Your task to perform on an android device: Go to calendar. Show me events next week Image 0: 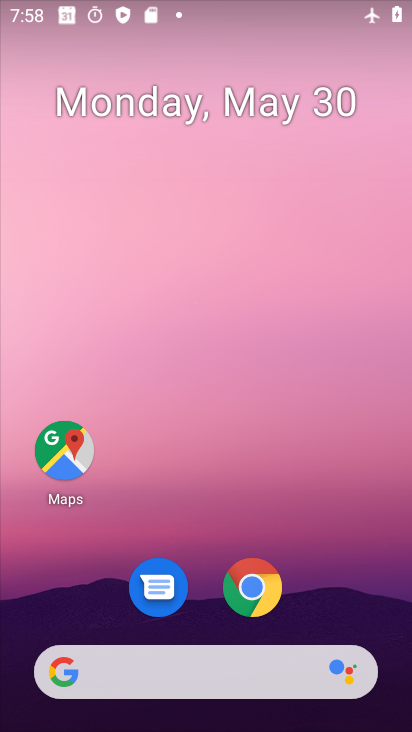
Step 0: drag from (333, 503) to (219, 6)
Your task to perform on an android device: Go to calendar. Show me events next week Image 1: 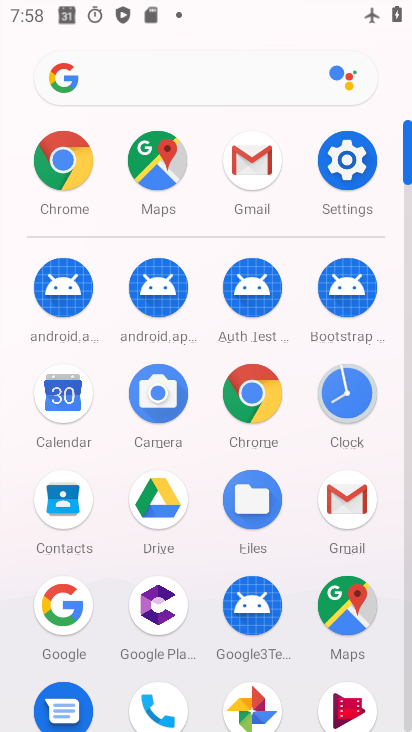
Step 1: drag from (19, 565) to (12, 269)
Your task to perform on an android device: Go to calendar. Show me events next week Image 2: 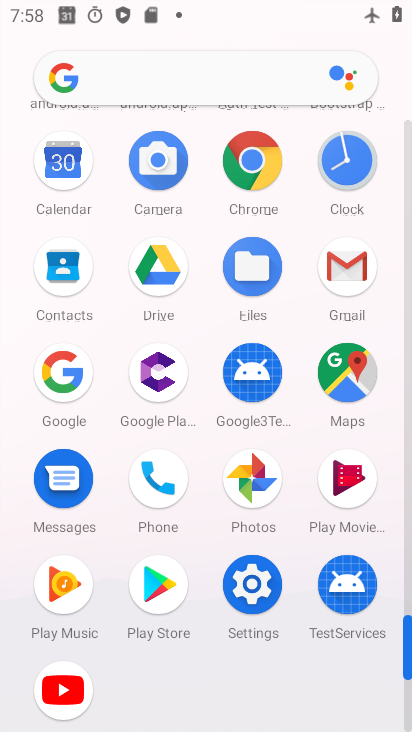
Step 2: click (63, 160)
Your task to perform on an android device: Go to calendar. Show me events next week Image 3: 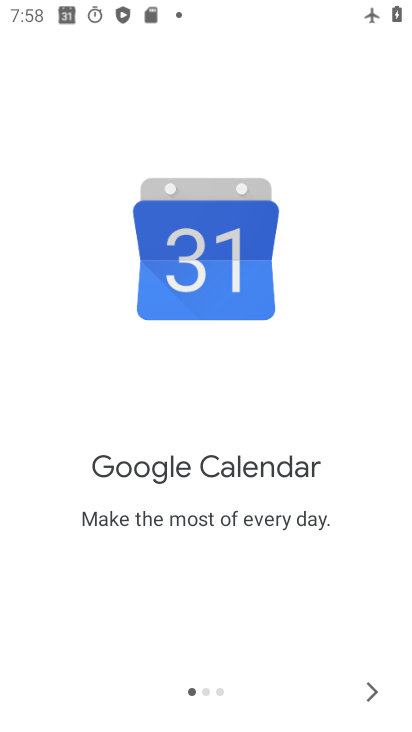
Step 3: click (359, 686)
Your task to perform on an android device: Go to calendar. Show me events next week Image 4: 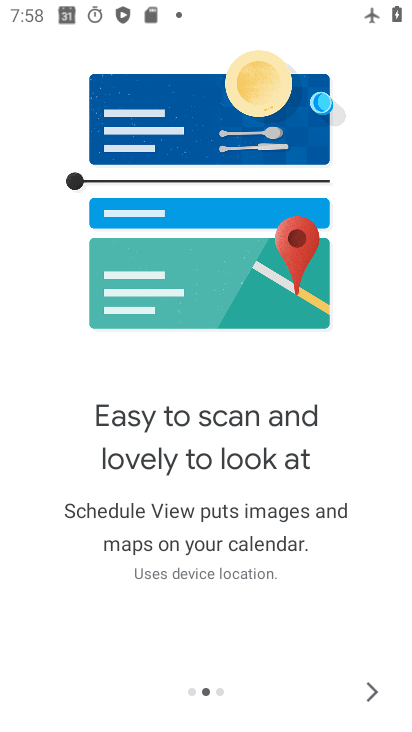
Step 4: click (359, 686)
Your task to perform on an android device: Go to calendar. Show me events next week Image 5: 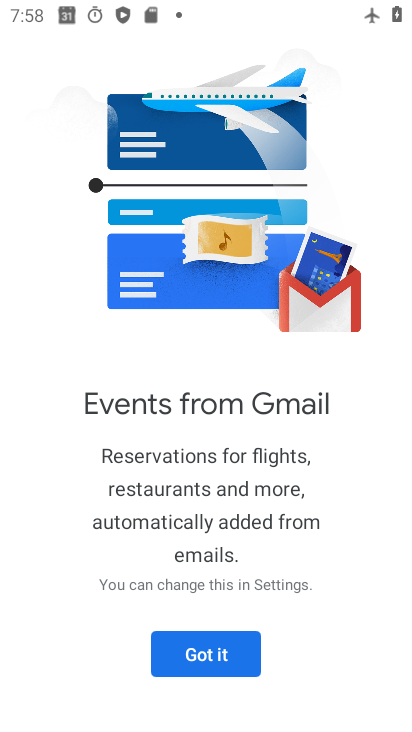
Step 5: click (263, 658)
Your task to perform on an android device: Go to calendar. Show me events next week Image 6: 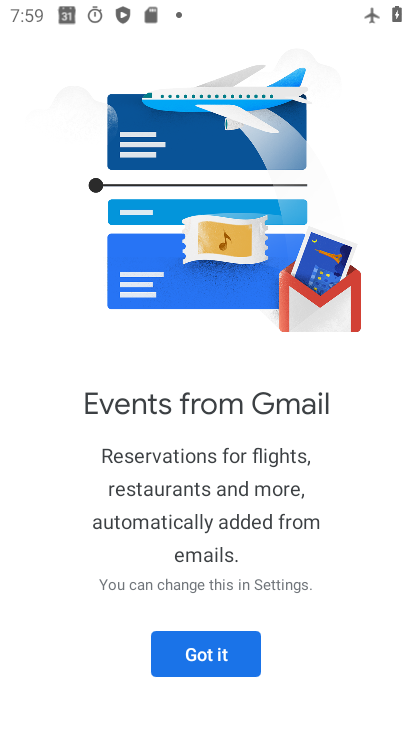
Step 6: click (234, 646)
Your task to perform on an android device: Go to calendar. Show me events next week Image 7: 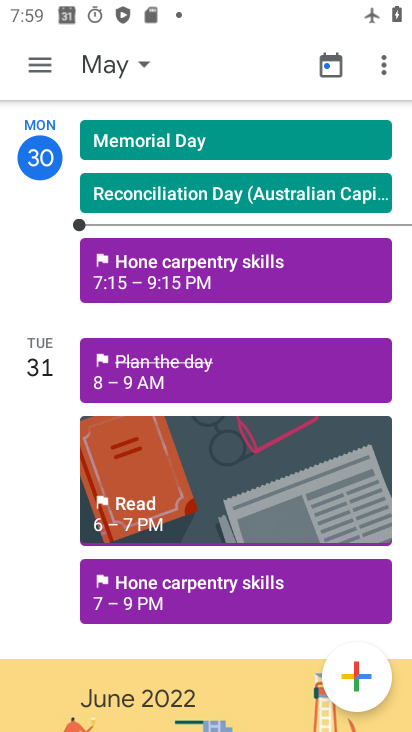
Step 7: click (43, 68)
Your task to perform on an android device: Go to calendar. Show me events next week Image 8: 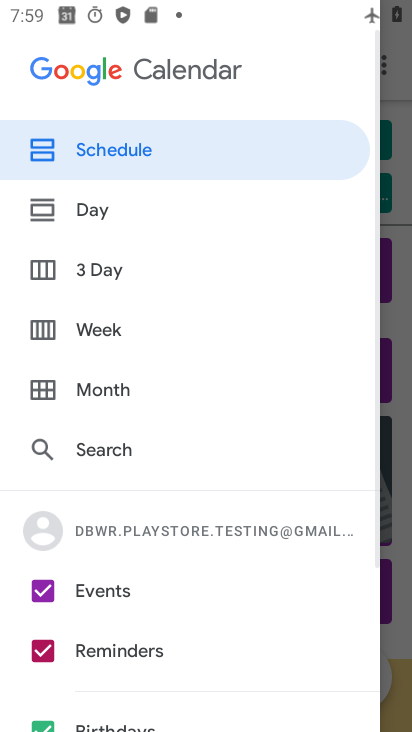
Step 8: click (121, 326)
Your task to perform on an android device: Go to calendar. Show me events next week Image 9: 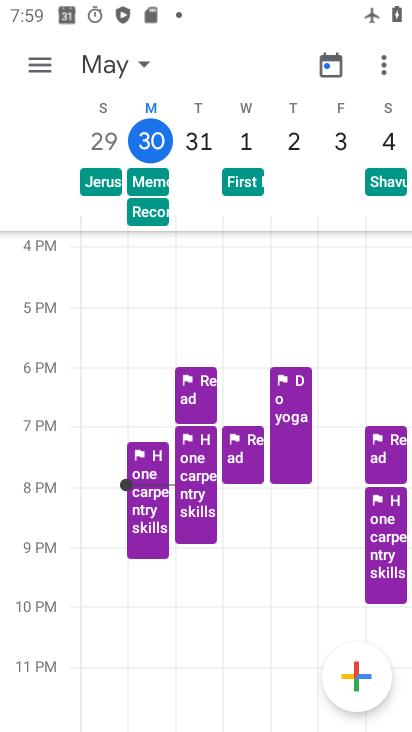
Step 9: task complete